Your task to perform on an android device: Search for "logitech g933" on walmart.com, select the first entry, and add it to the cart. Image 0: 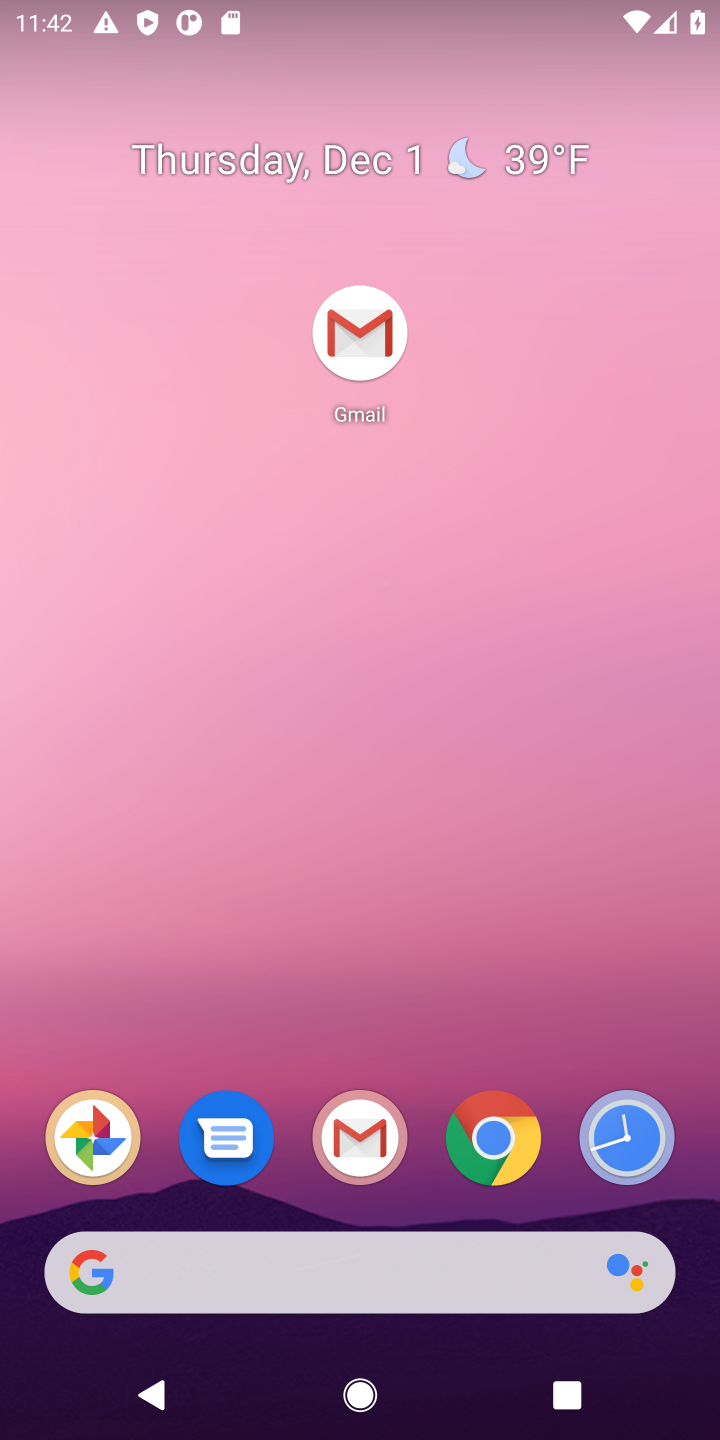
Step 0: drag from (430, 1180) to (481, 536)
Your task to perform on an android device: Search for "logitech g933" on walmart.com, select the first entry, and add it to the cart. Image 1: 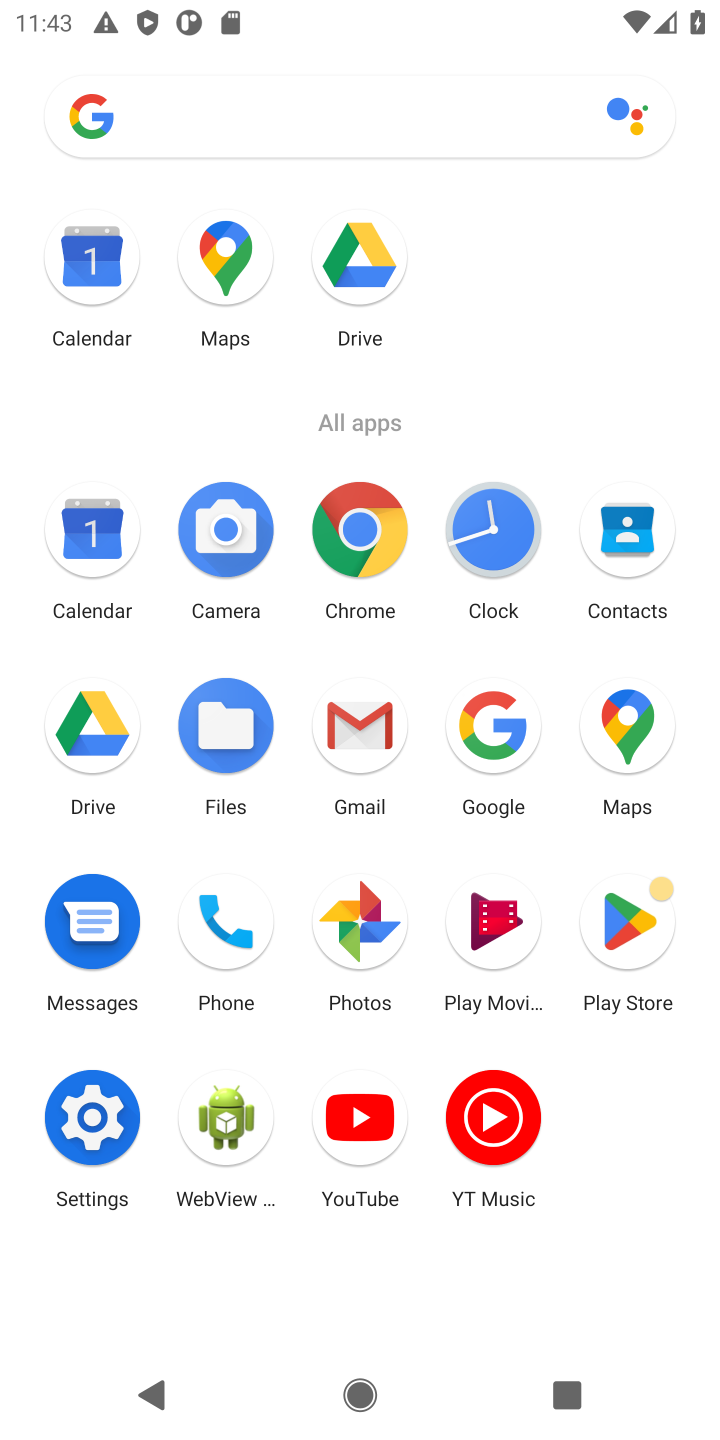
Step 1: click (501, 733)
Your task to perform on an android device: Search for "logitech g933" on walmart.com, select the first entry, and add it to the cart. Image 2: 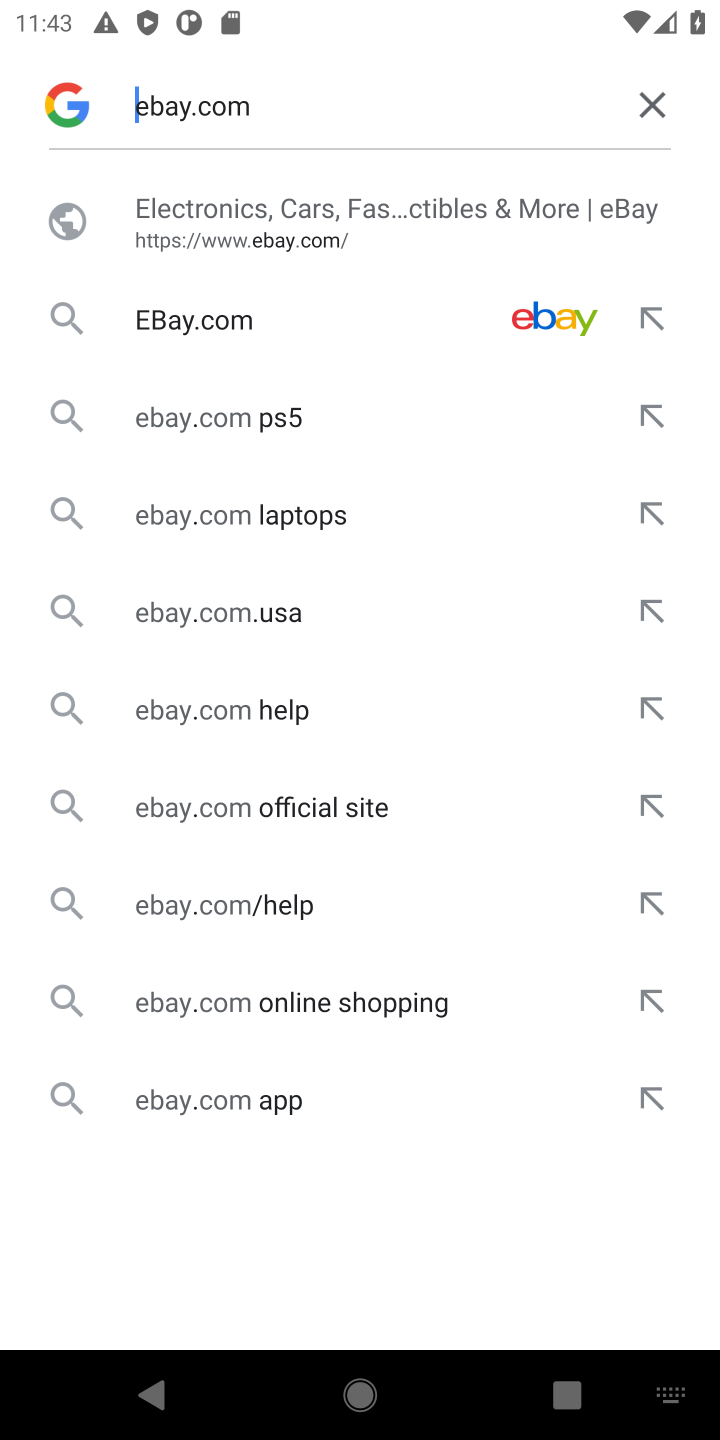
Step 2: click (669, 117)
Your task to perform on an android device: Search for "logitech g933" on walmart.com, select the first entry, and add it to the cart. Image 3: 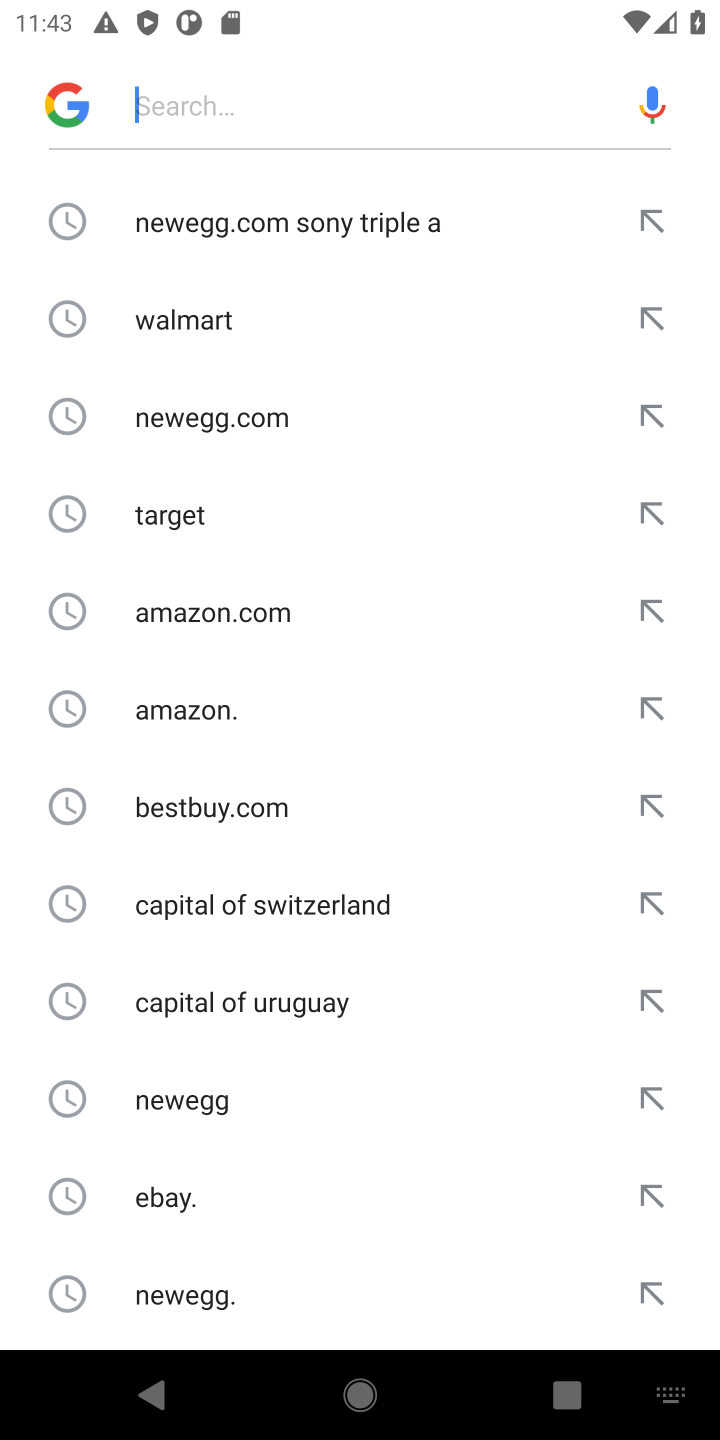
Step 3: type "walmart.com"
Your task to perform on an android device: Search for "logitech g933" on walmart.com, select the first entry, and add it to the cart. Image 4: 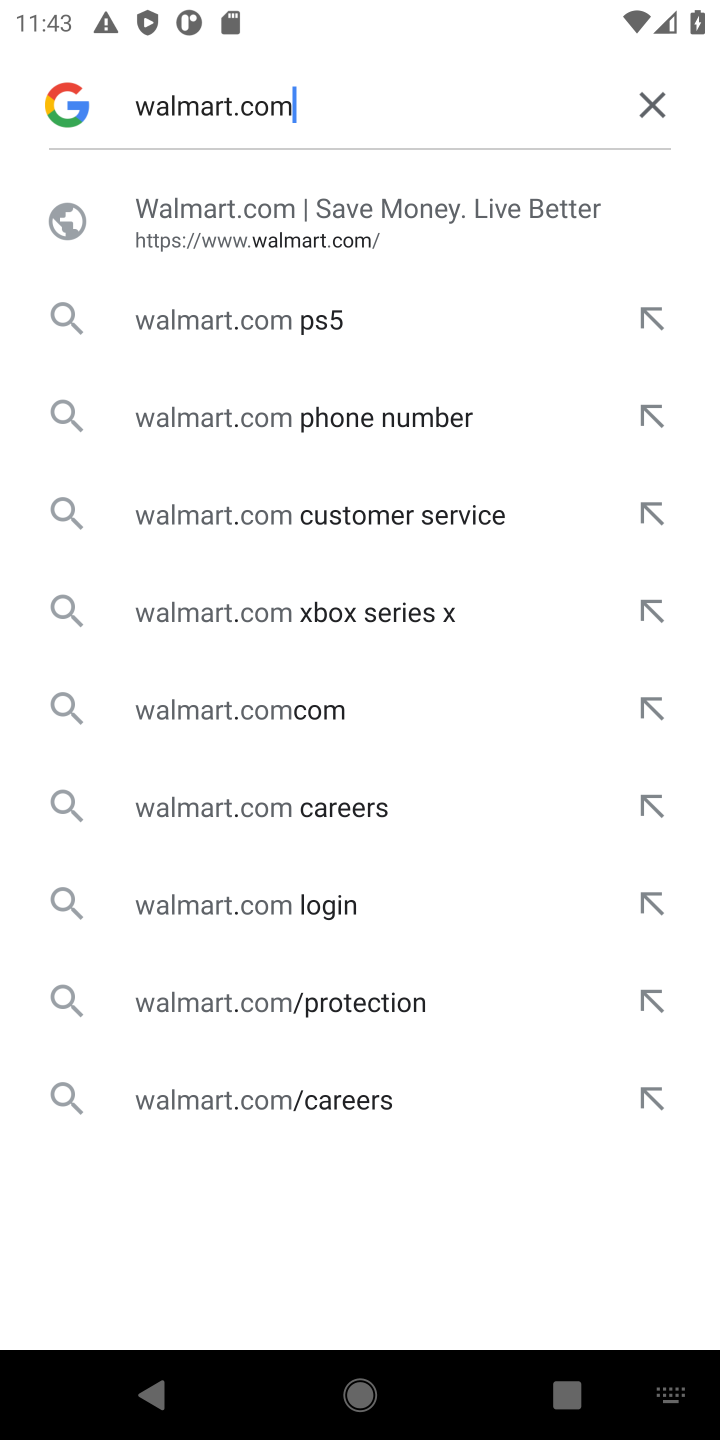
Step 4: click (414, 232)
Your task to perform on an android device: Search for "logitech g933" on walmart.com, select the first entry, and add it to the cart. Image 5: 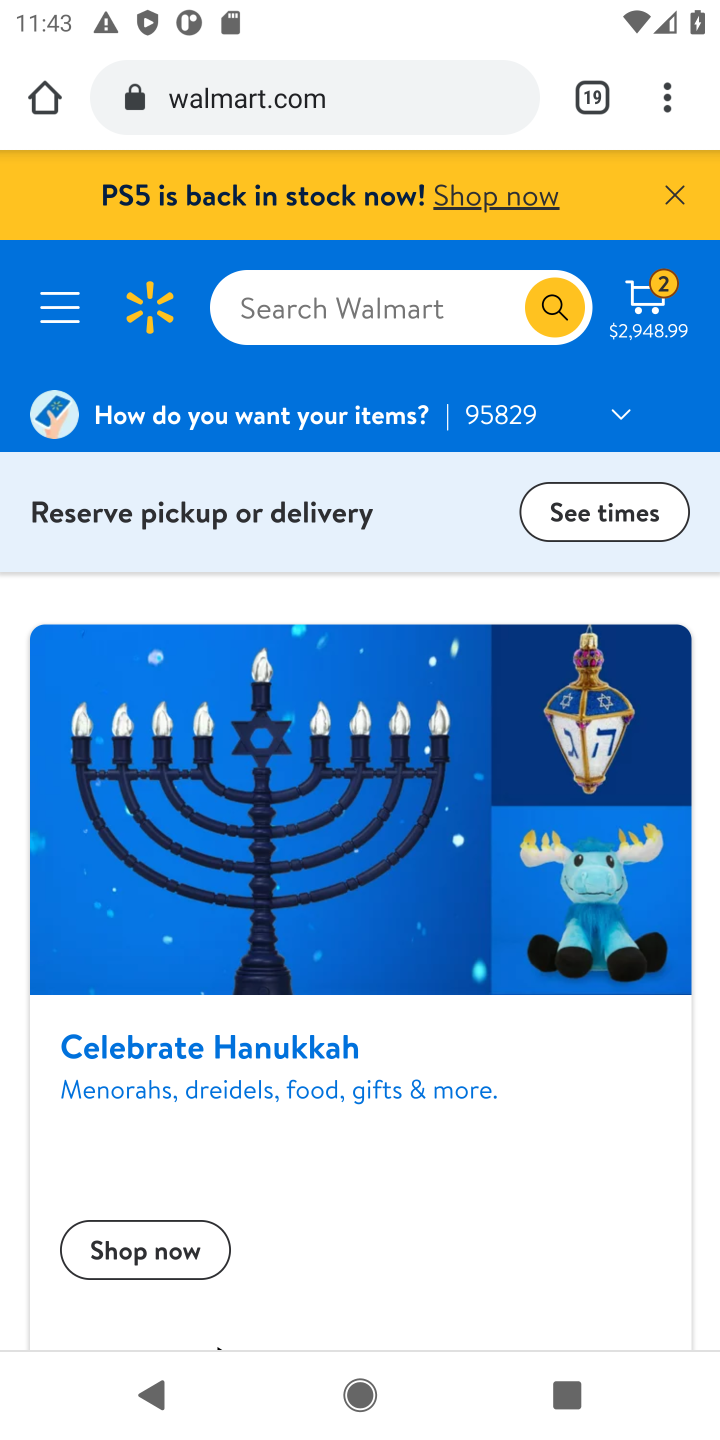
Step 5: click (388, 306)
Your task to perform on an android device: Search for "logitech g933" on walmart.com, select the first entry, and add it to the cart. Image 6: 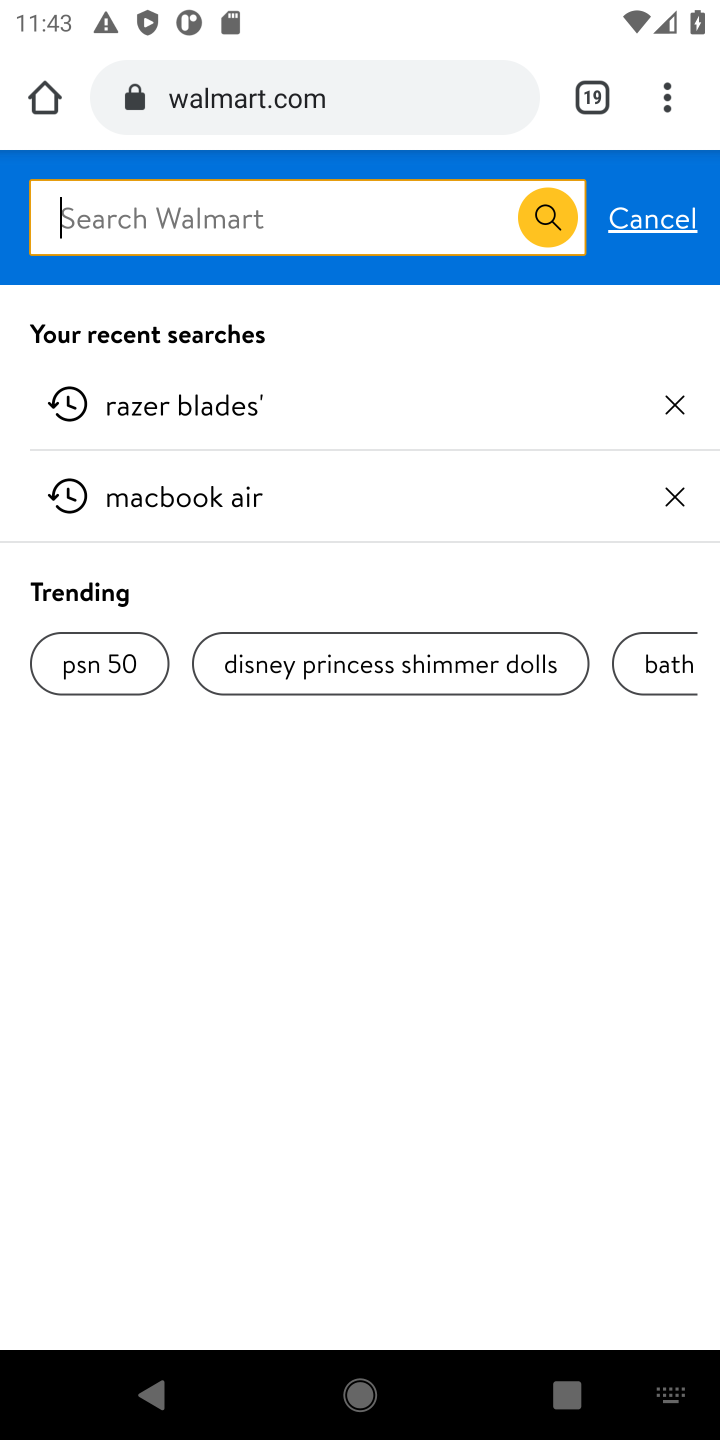
Step 6: type "logitech g933"
Your task to perform on an android device: Search for "logitech g933" on walmart.com, select the first entry, and add it to the cart. Image 7: 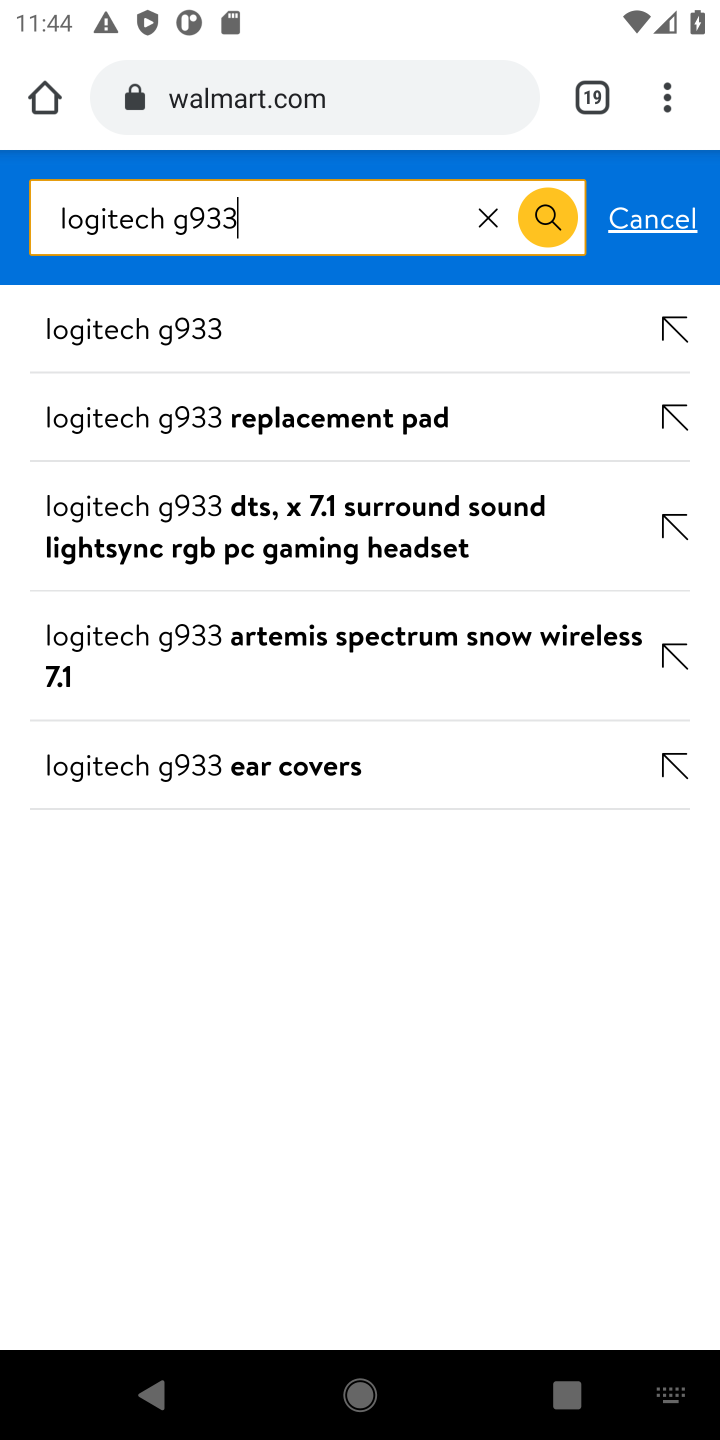
Step 7: click (217, 335)
Your task to perform on an android device: Search for "logitech g933" on walmart.com, select the first entry, and add it to the cart. Image 8: 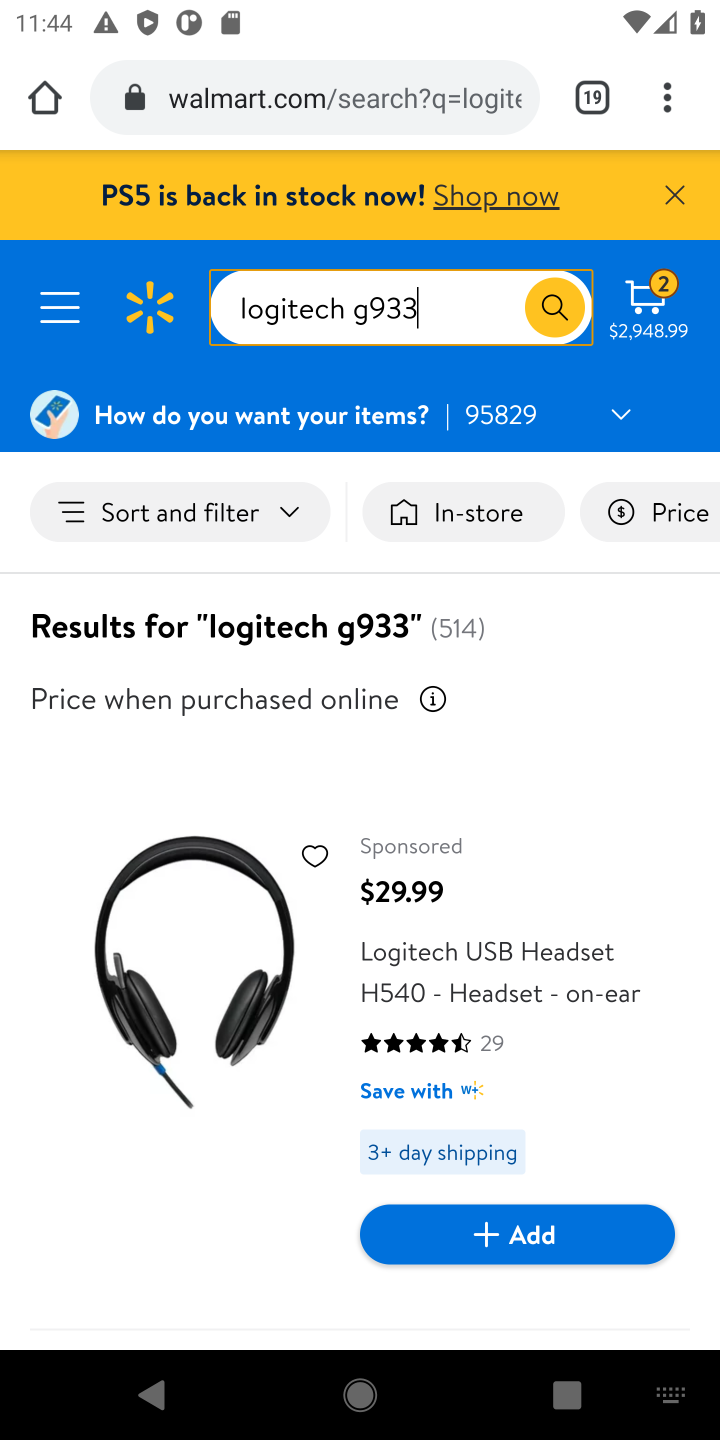
Step 8: click (521, 1236)
Your task to perform on an android device: Search for "logitech g933" on walmart.com, select the first entry, and add it to the cart. Image 9: 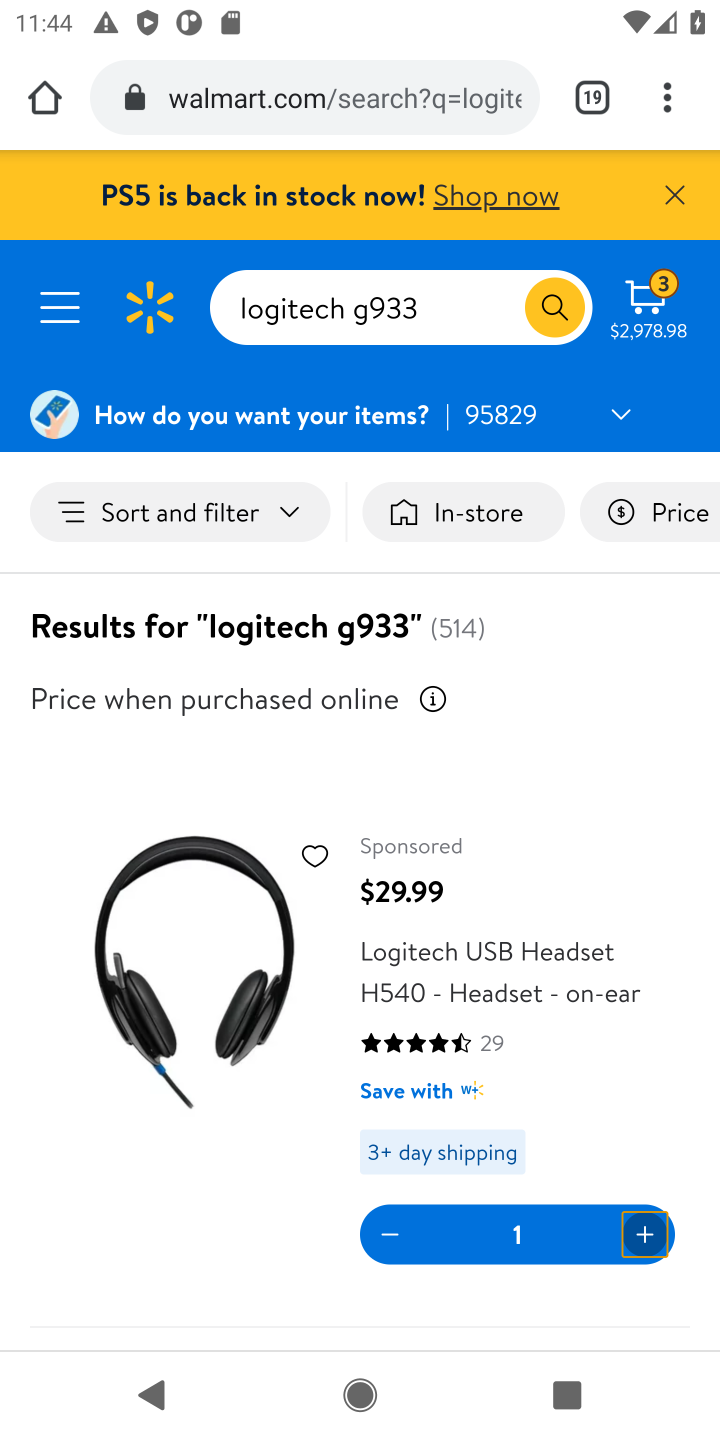
Step 9: click (671, 296)
Your task to perform on an android device: Search for "logitech g933" on walmart.com, select the first entry, and add it to the cart. Image 10: 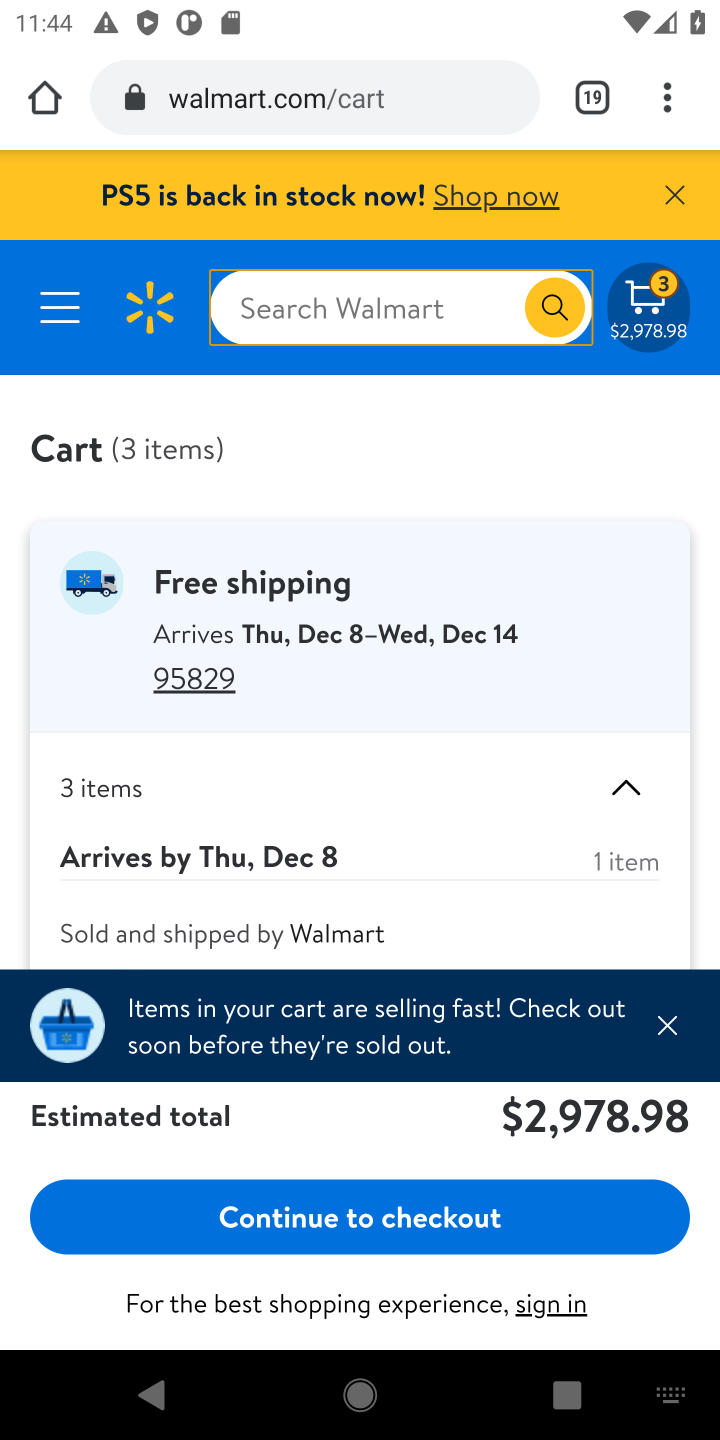
Step 10: click (663, 1027)
Your task to perform on an android device: Search for "logitech g933" on walmart.com, select the first entry, and add it to the cart. Image 11: 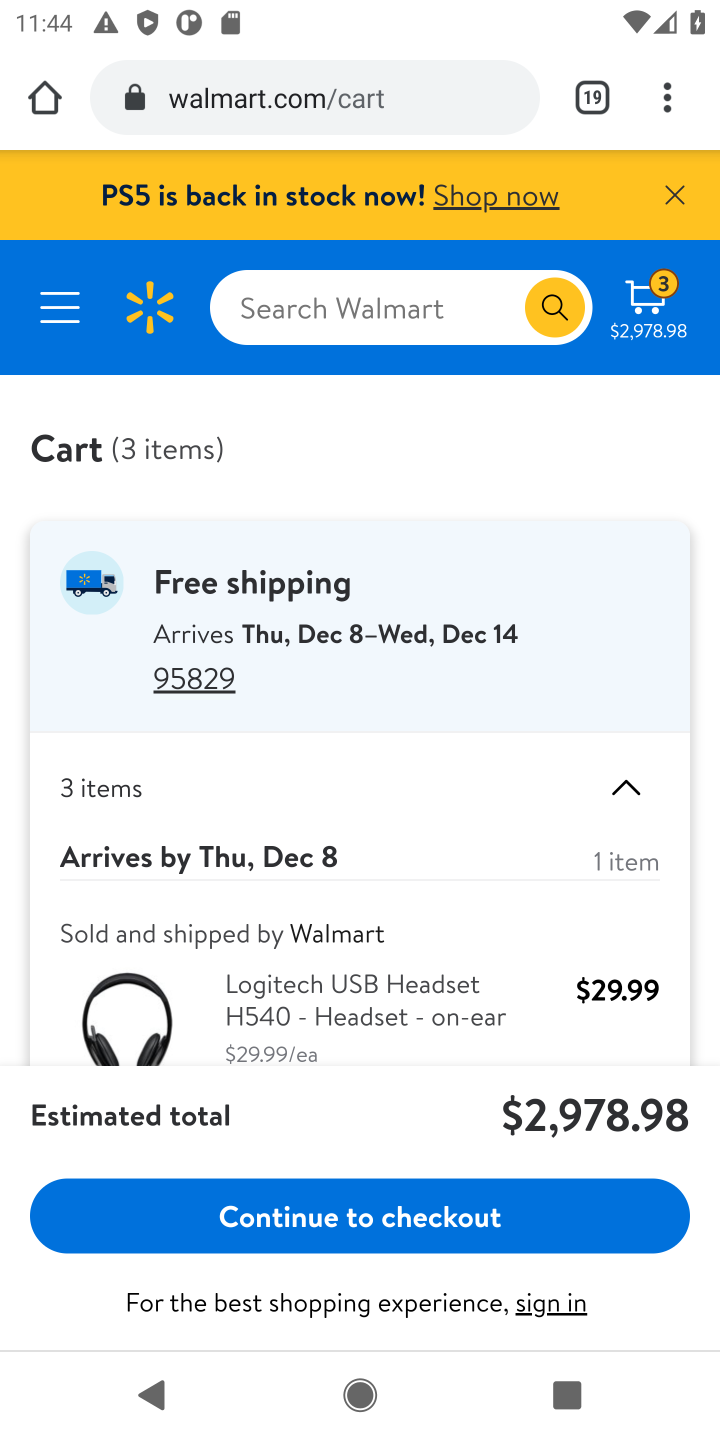
Step 11: task complete